Your task to perform on an android device: open app "Firefox Browser" (install if not already installed) and enter user name: "hashed@outlook.com" and password: "congestive" Image 0: 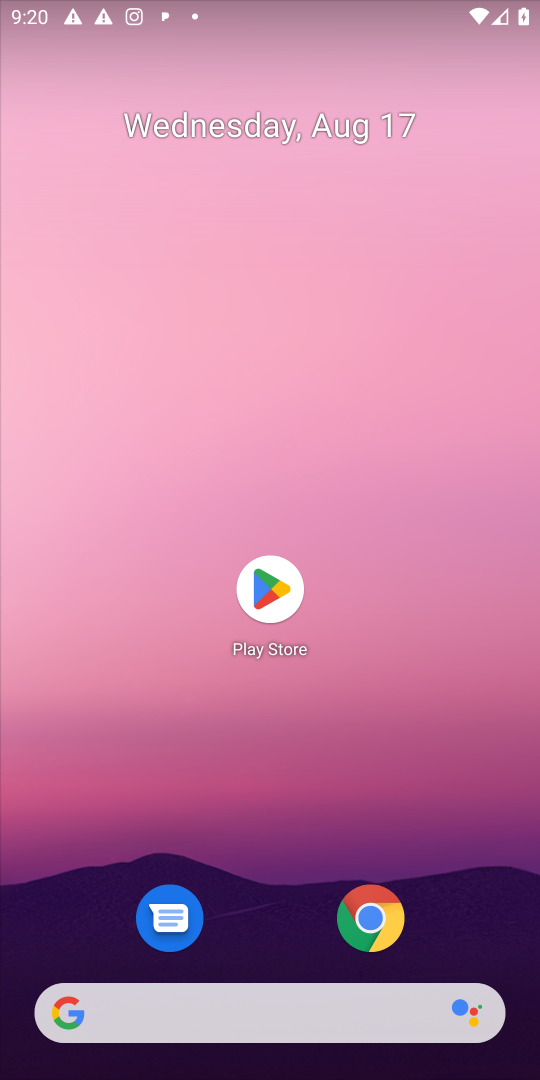
Step 0: press home button
Your task to perform on an android device: open app "Firefox Browser" (install if not already installed) and enter user name: "hashed@outlook.com" and password: "congestive" Image 1: 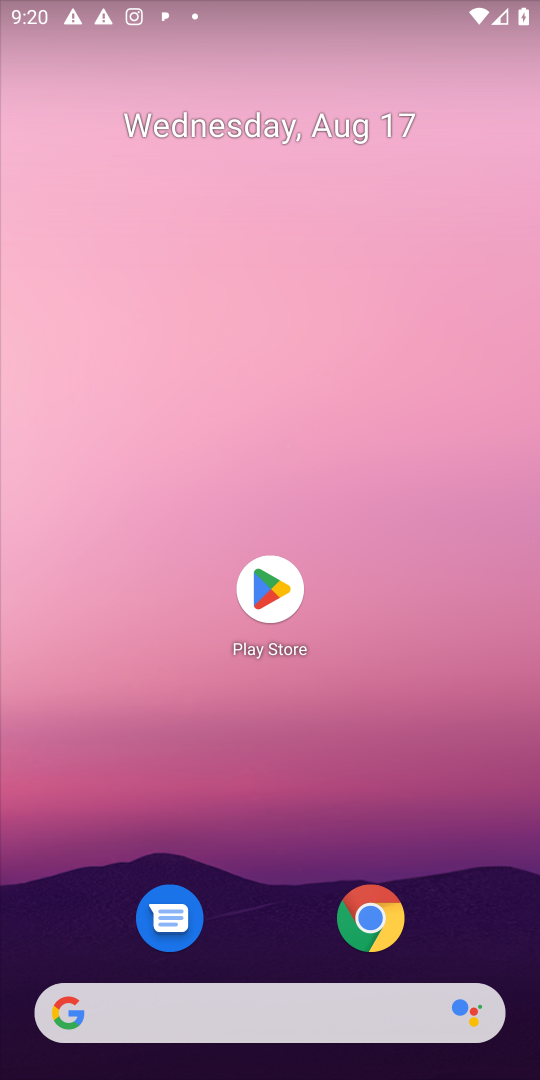
Step 1: click (275, 587)
Your task to perform on an android device: open app "Firefox Browser" (install if not already installed) and enter user name: "hashed@outlook.com" and password: "congestive" Image 2: 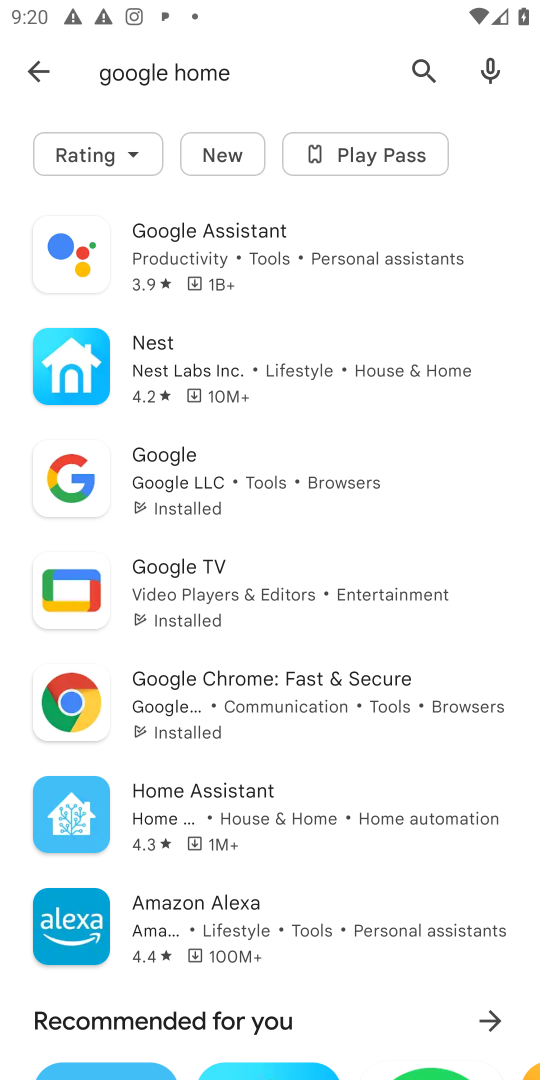
Step 2: click (410, 68)
Your task to perform on an android device: open app "Firefox Browser" (install if not already installed) and enter user name: "hashed@outlook.com" and password: "congestive" Image 3: 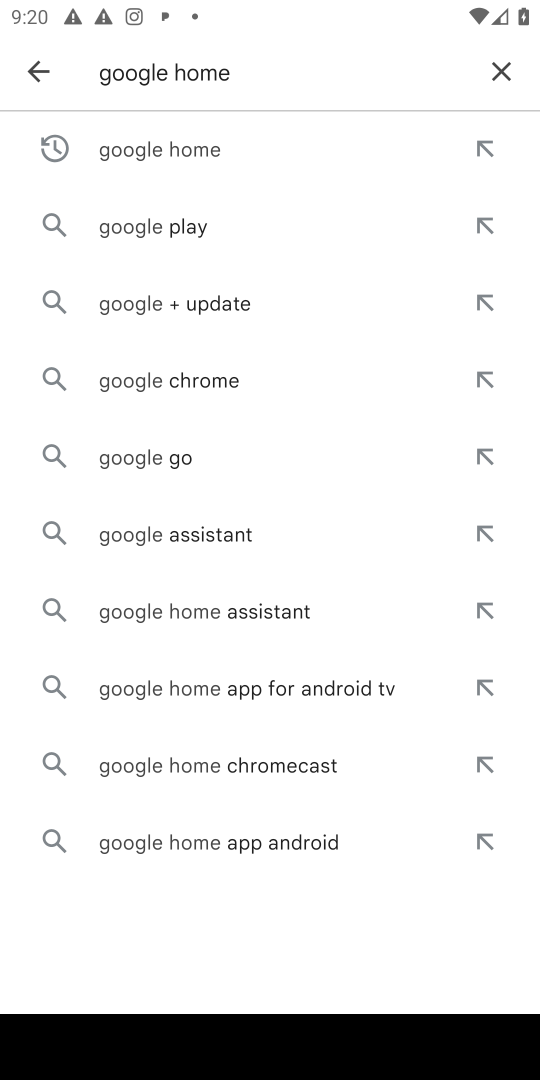
Step 3: click (506, 71)
Your task to perform on an android device: open app "Firefox Browser" (install if not already installed) and enter user name: "hashed@outlook.com" and password: "congestive" Image 4: 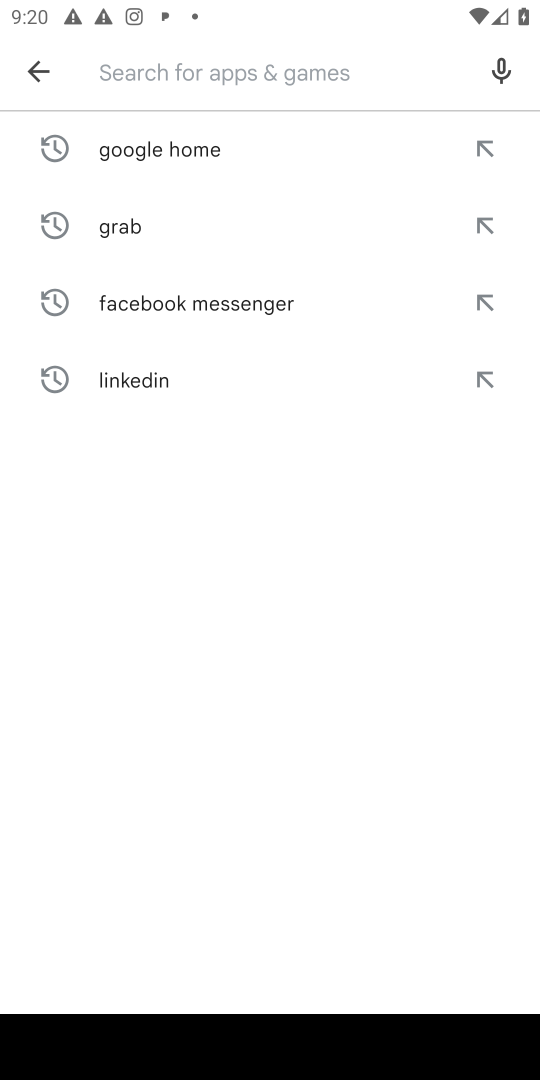
Step 4: type "Firefox Browser"
Your task to perform on an android device: open app "Firefox Browser" (install if not already installed) and enter user name: "hashed@outlook.com" and password: "congestive" Image 5: 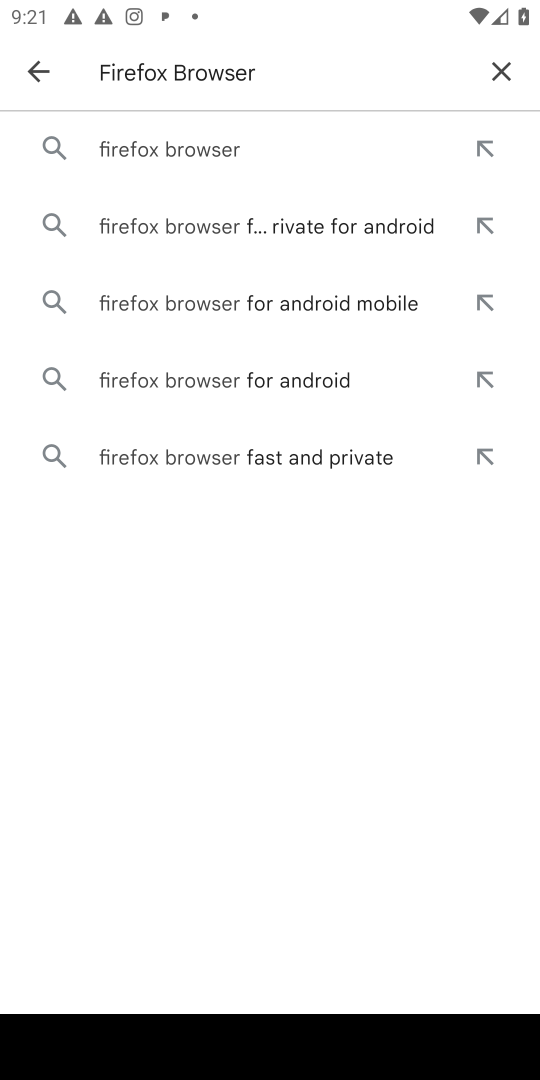
Step 5: click (193, 144)
Your task to perform on an android device: open app "Firefox Browser" (install if not already installed) and enter user name: "hashed@outlook.com" and password: "congestive" Image 6: 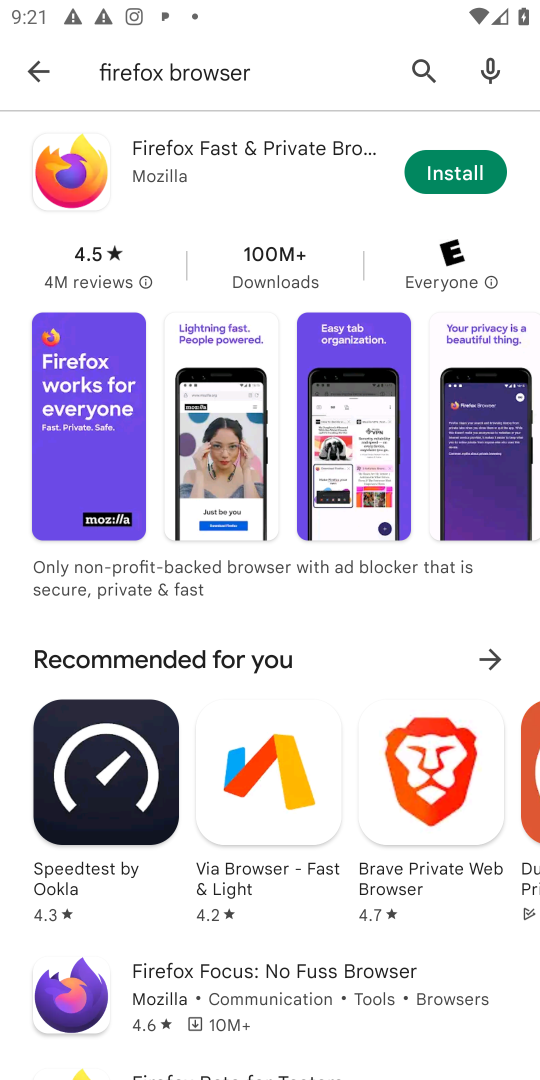
Step 6: click (480, 182)
Your task to perform on an android device: open app "Firefox Browser" (install if not already installed) and enter user name: "hashed@outlook.com" and password: "congestive" Image 7: 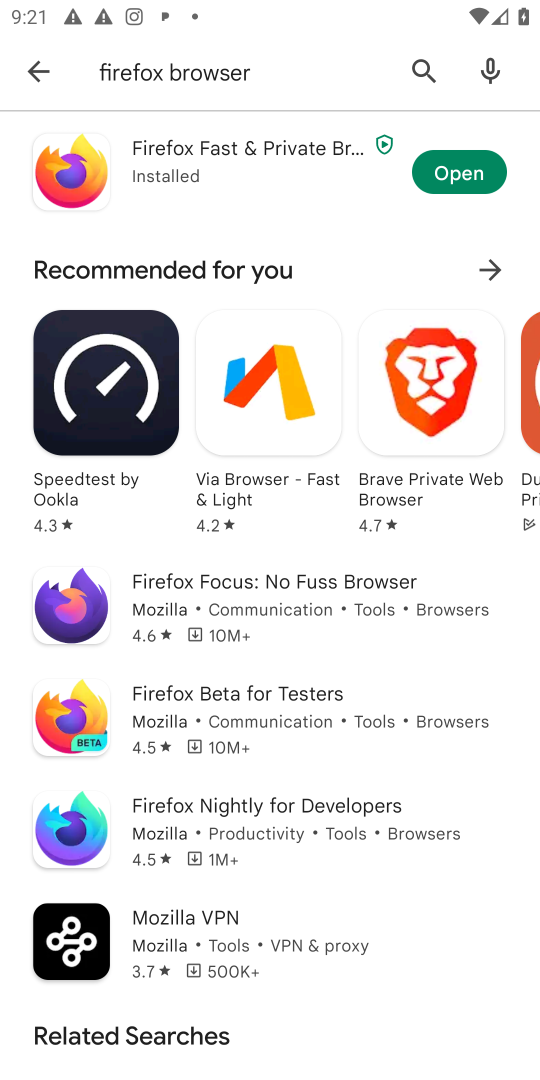
Step 7: click (487, 172)
Your task to perform on an android device: open app "Firefox Browser" (install if not already installed) and enter user name: "hashed@outlook.com" and password: "congestive" Image 8: 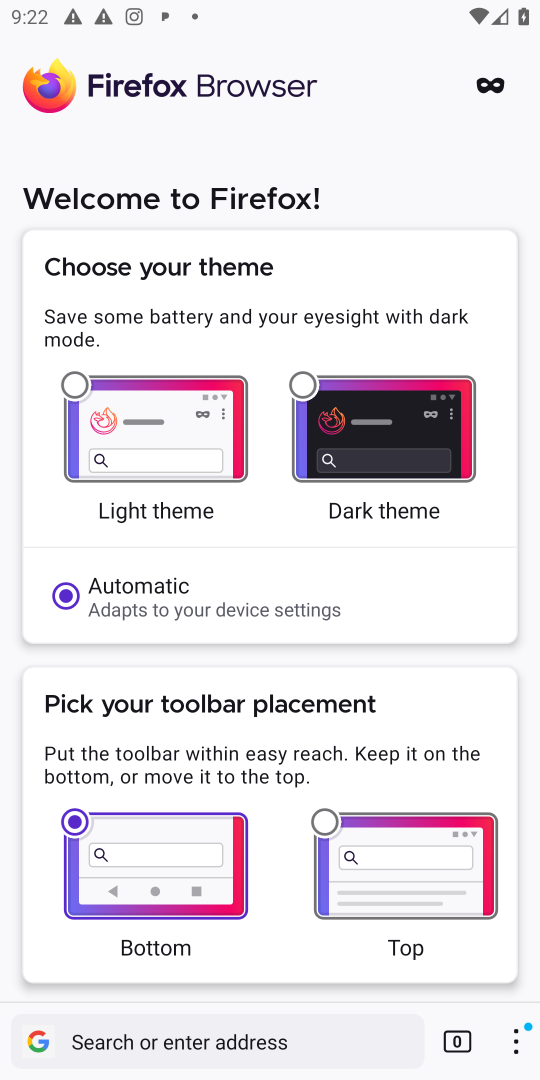
Step 8: task complete